Your task to perform on an android device: Do I have any events this weekend? Image 0: 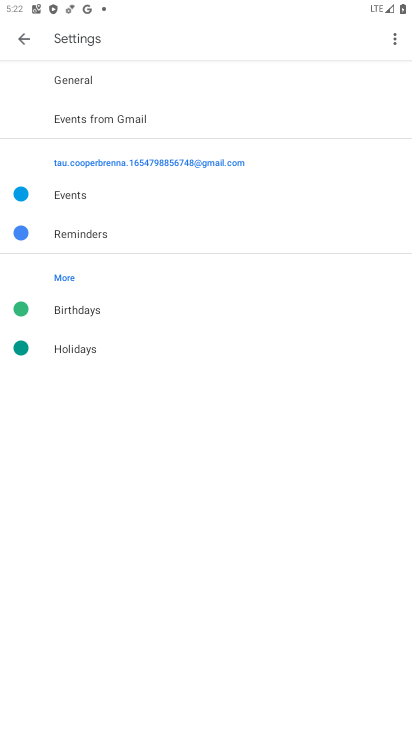
Step 0: press back button
Your task to perform on an android device: Do I have any events this weekend? Image 1: 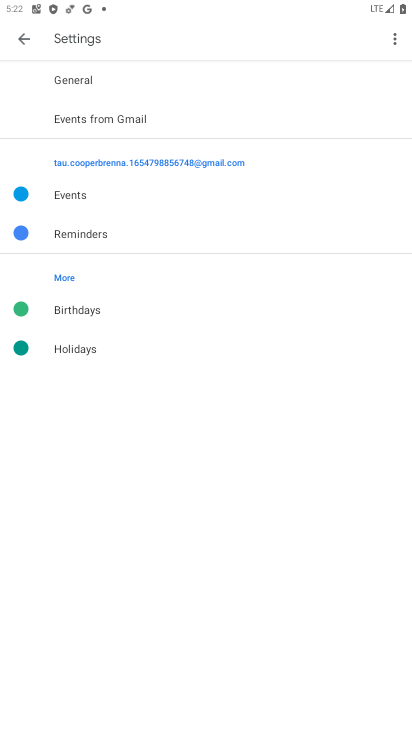
Step 1: press back button
Your task to perform on an android device: Do I have any events this weekend? Image 2: 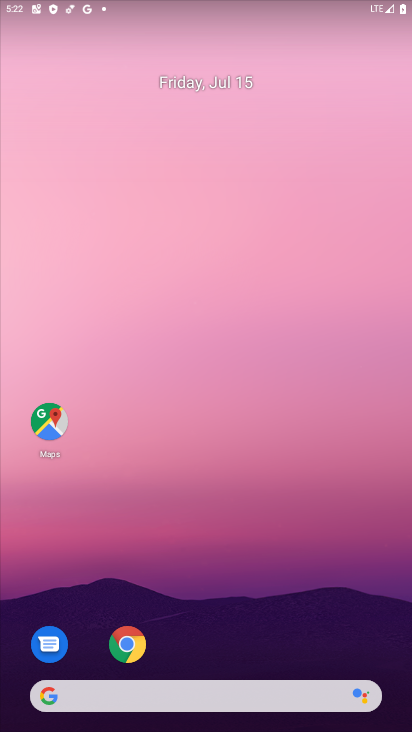
Step 2: drag from (228, 635) to (142, 191)
Your task to perform on an android device: Do I have any events this weekend? Image 3: 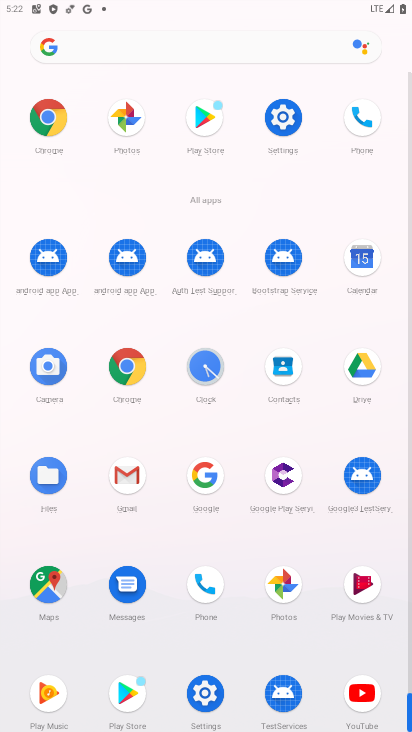
Step 3: click (362, 262)
Your task to perform on an android device: Do I have any events this weekend? Image 4: 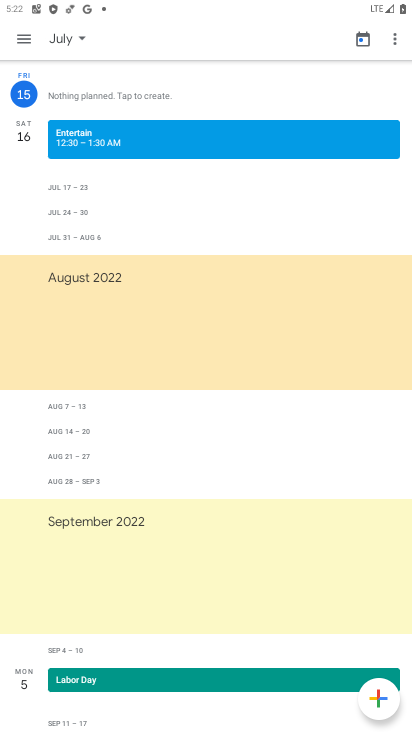
Step 4: task complete